Your task to perform on an android device: turn on javascript in the chrome app Image 0: 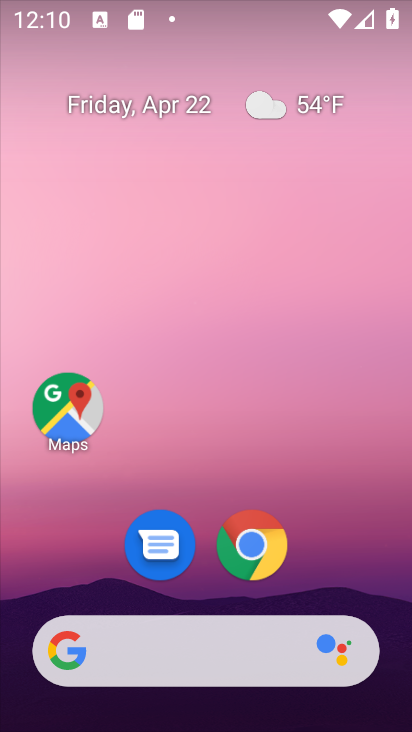
Step 0: click (270, 549)
Your task to perform on an android device: turn on javascript in the chrome app Image 1: 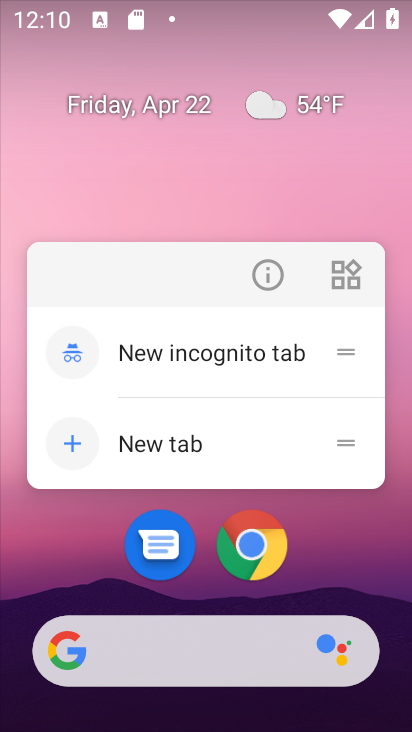
Step 1: click (271, 281)
Your task to perform on an android device: turn on javascript in the chrome app Image 2: 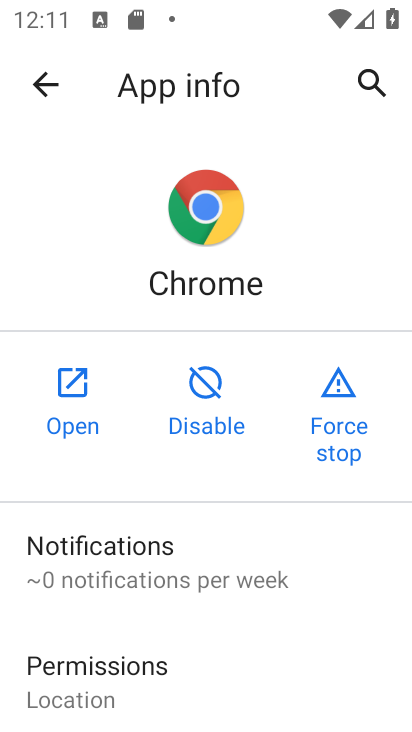
Step 2: click (92, 407)
Your task to perform on an android device: turn on javascript in the chrome app Image 3: 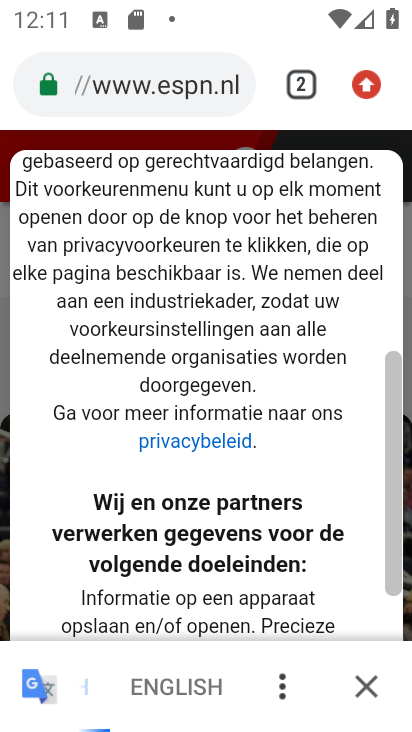
Step 3: click (352, 694)
Your task to perform on an android device: turn on javascript in the chrome app Image 4: 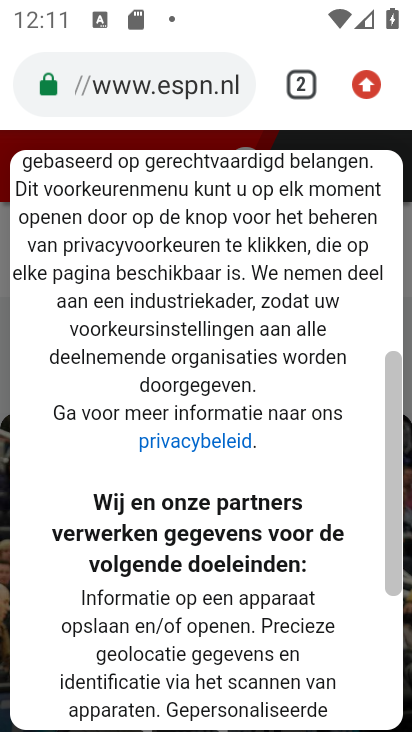
Step 4: click (375, 75)
Your task to perform on an android device: turn on javascript in the chrome app Image 5: 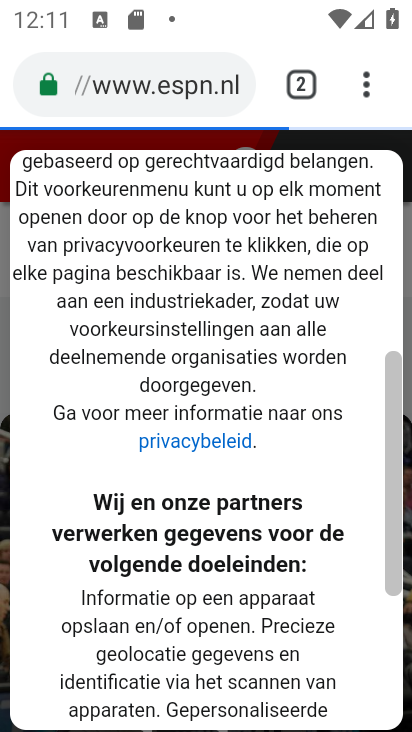
Step 5: click (365, 91)
Your task to perform on an android device: turn on javascript in the chrome app Image 6: 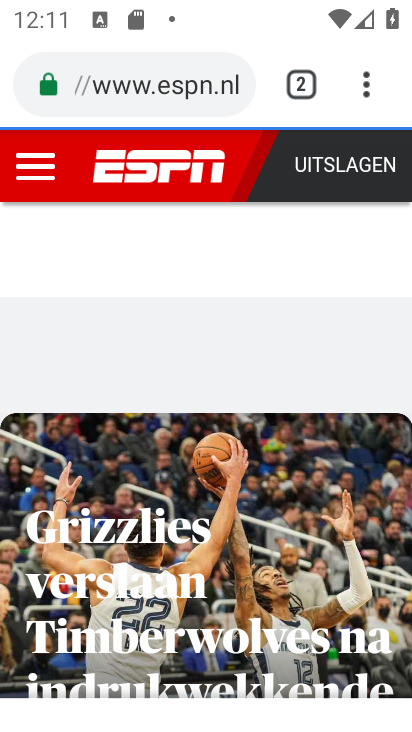
Step 6: click (367, 89)
Your task to perform on an android device: turn on javascript in the chrome app Image 7: 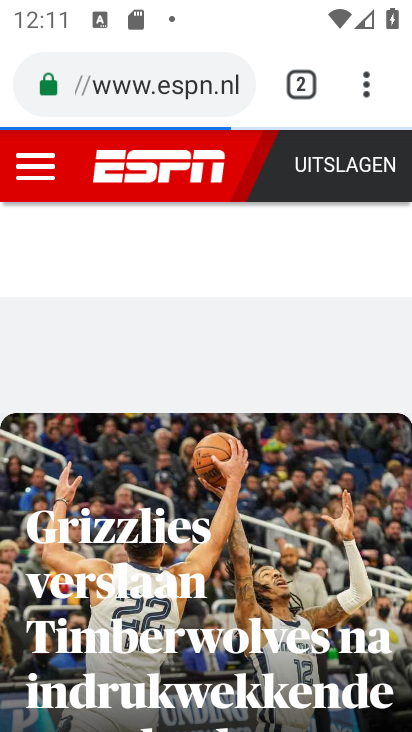
Step 7: click (365, 89)
Your task to perform on an android device: turn on javascript in the chrome app Image 8: 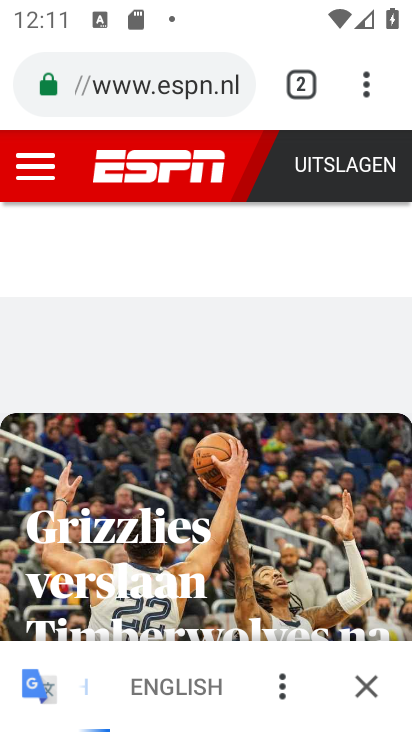
Step 8: click (359, 94)
Your task to perform on an android device: turn on javascript in the chrome app Image 9: 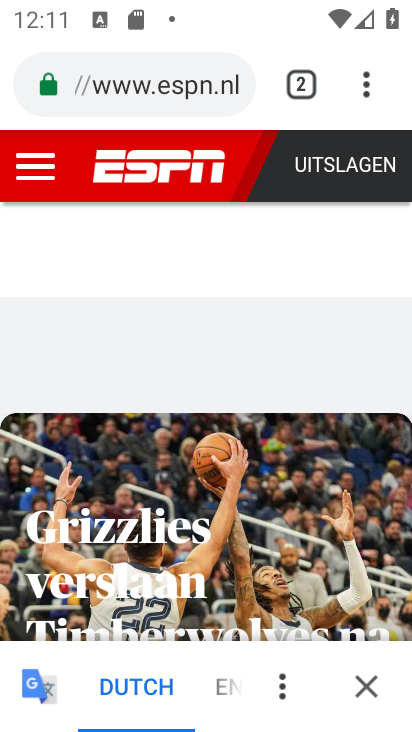
Step 9: click (363, 93)
Your task to perform on an android device: turn on javascript in the chrome app Image 10: 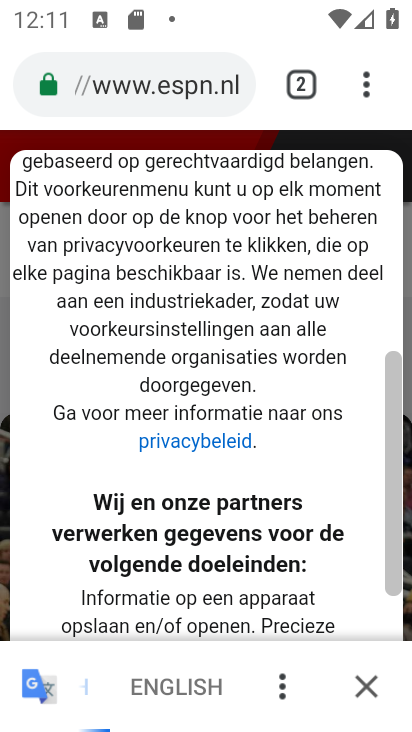
Step 10: click (363, 91)
Your task to perform on an android device: turn on javascript in the chrome app Image 11: 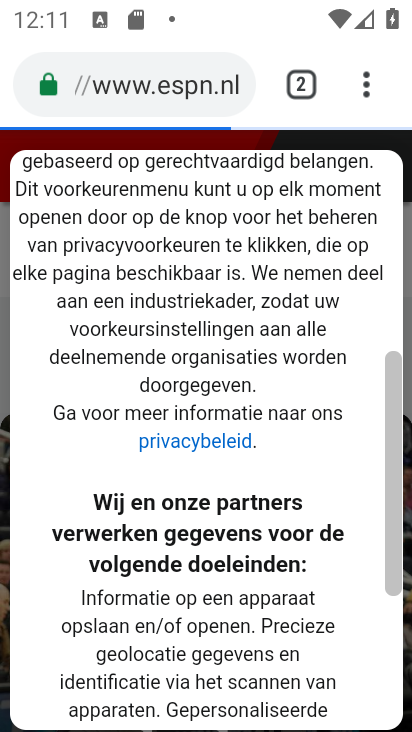
Step 11: click (368, 78)
Your task to perform on an android device: turn on javascript in the chrome app Image 12: 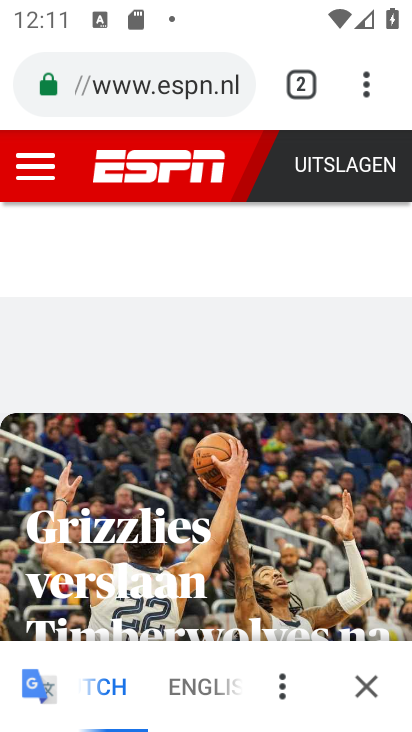
Step 12: click (366, 90)
Your task to perform on an android device: turn on javascript in the chrome app Image 13: 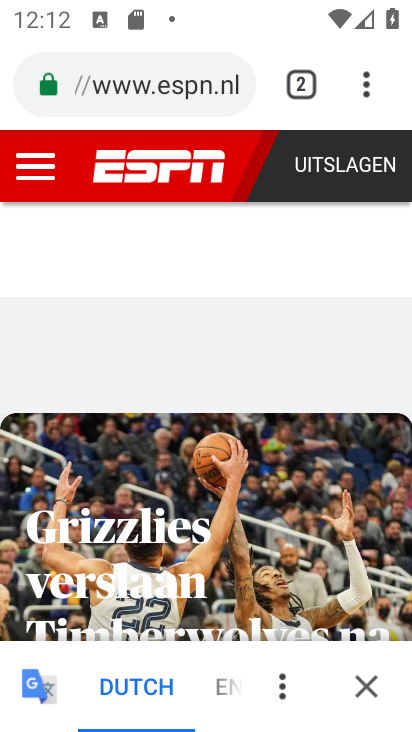
Step 13: click (366, 85)
Your task to perform on an android device: turn on javascript in the chrome app Image 14: 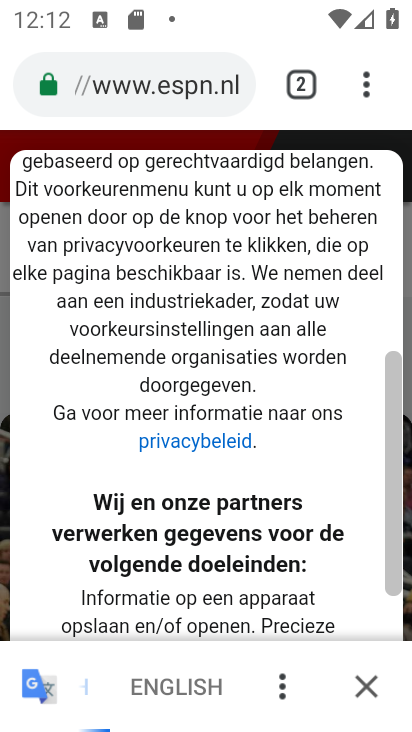
Step 14: click (373, 81)
Your task to perform on an android device: turn on javascript in the chrome app Image 15: 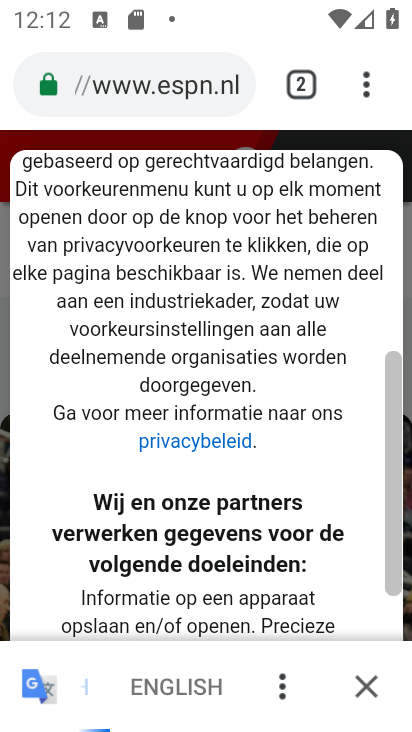
Step 15: click (363, 87)
Your task to perform on an android device: turn on javascript in the chrome app Image 16: 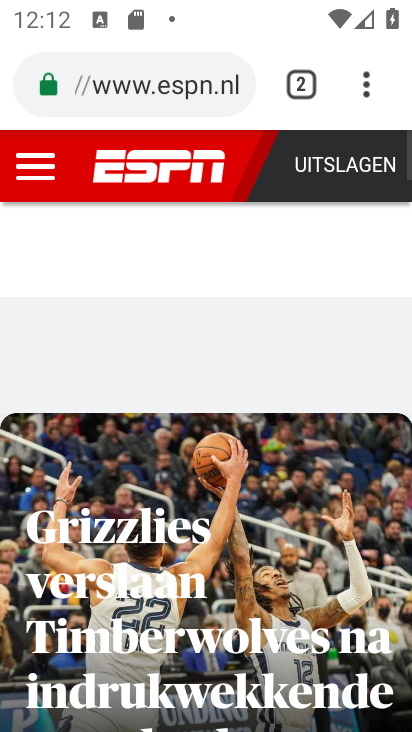
Step 16: click (371, 90)
Your task to perform on an android device: turn on javascript in the chrome app Image 17: 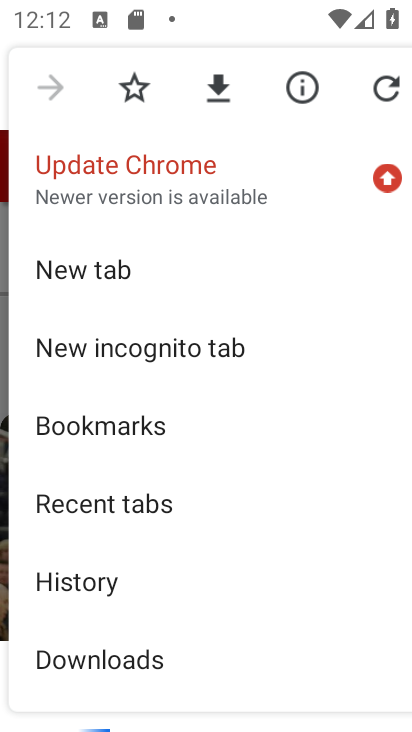
Step 17: drag from (239, 603) to (241, 334)
Your task to perform on an android device: turn on javascript in the chrome app Image 18: 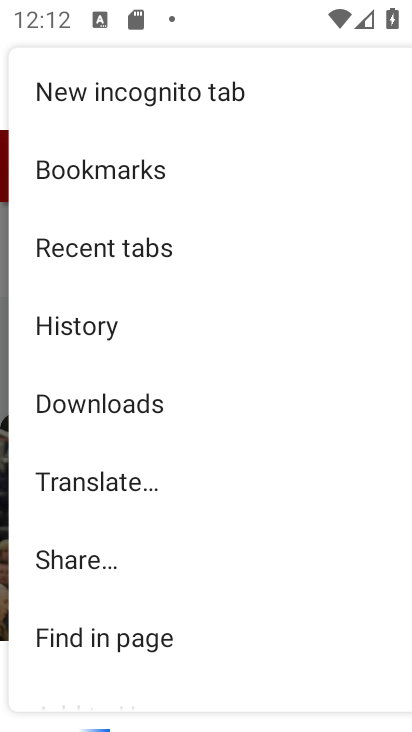
Step 18: drag from (208, 598) to (210, 280)
Your task to perform on an android device: turn on javascript in the chrome app Image 19: 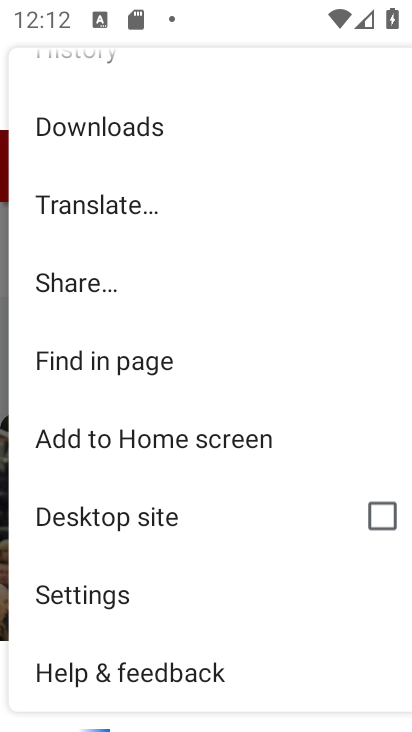
Step 19: click (172, 603)
Your task to perform on an android device: turn on javascript in the chrome app Image 20: 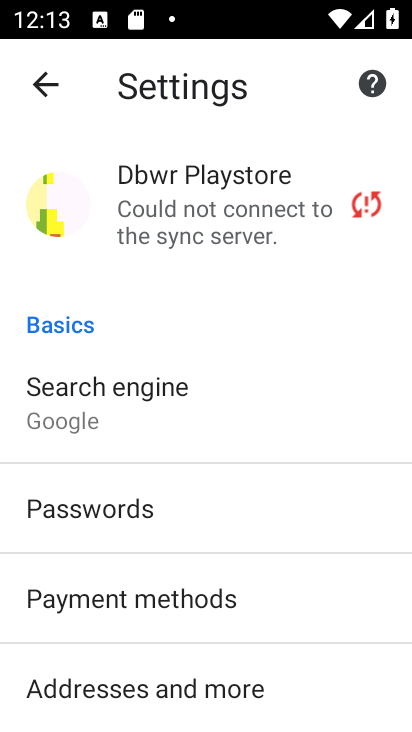
Step 20: drag from (233, 561) to (223, 180)
Your task to perform on an android device: turn on javascript in the chrome app Image 21: 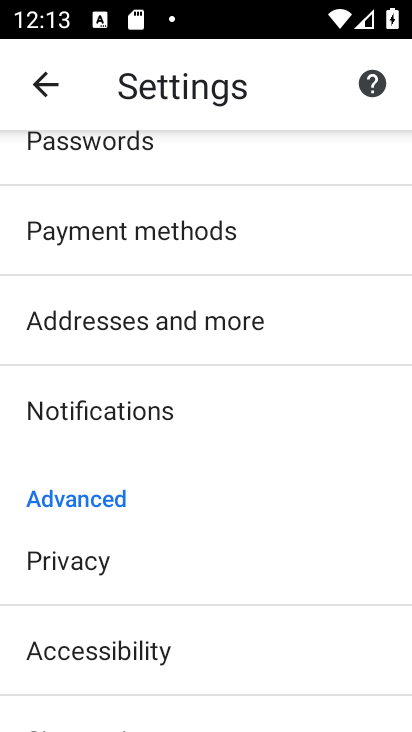
Step 21: drag from (183, 539) to (206, 262)
Your task to perform on an android device: turn on javascript in the chrome app Image 22: 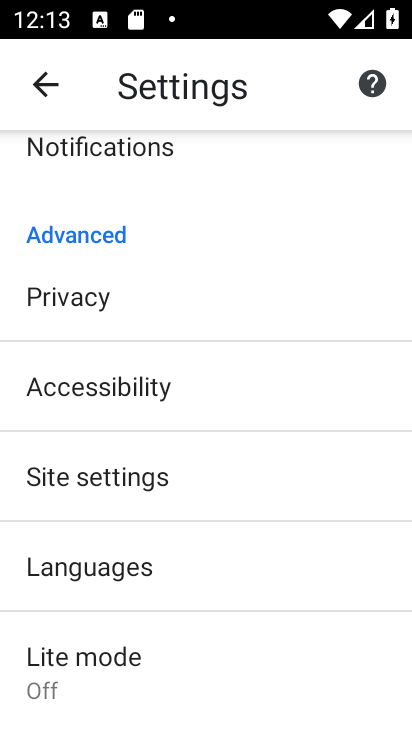
Step 22: click (138, 488)
Your task to perform on an android device: turn on javascript in the chrome app Image 23: 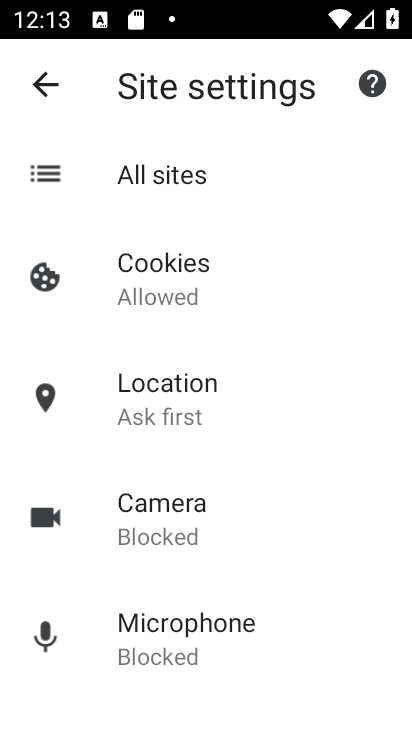
Step 23: task complete